Your task to perform on an android device: Open Amazon Image 0: 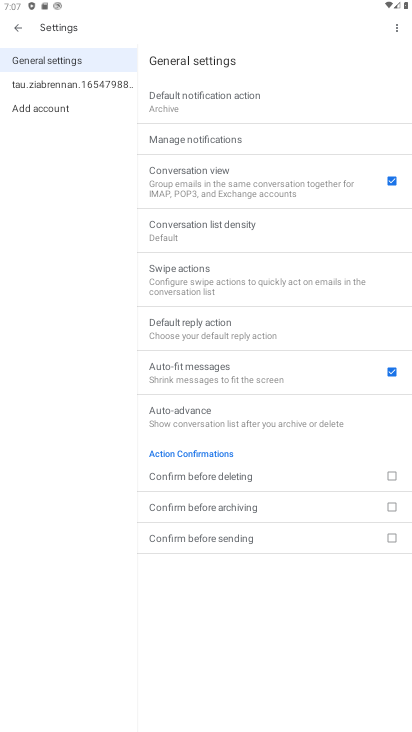
Step 0: press home button
Your task to perform on an android device: Open Amazon Image 1: 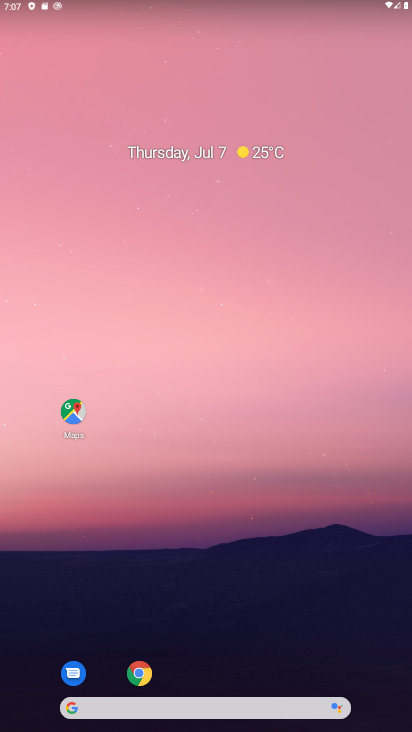
Step 1: drag from (197, 711) to (233, 415)
Your task to perform on an android device: Open Amazon Image 2: 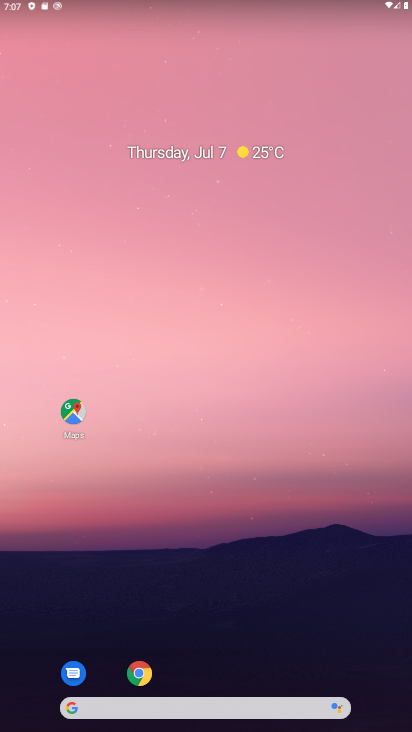
Step 2: click (139, 686)
Your task to perform on an android device: Open Amazon Image 3: 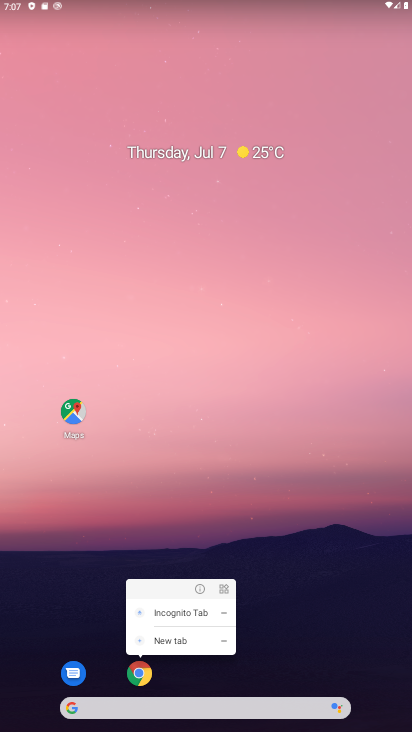
Step 3: click (140, 681)
Your task to perform on an android device: Open Amazon Image 4: 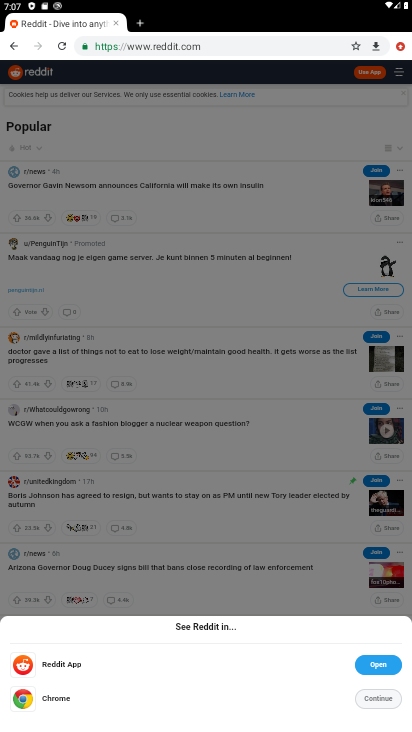
Step 4: click (399, 50)
Your task to perform on an android device: Open Amazon Image 5: 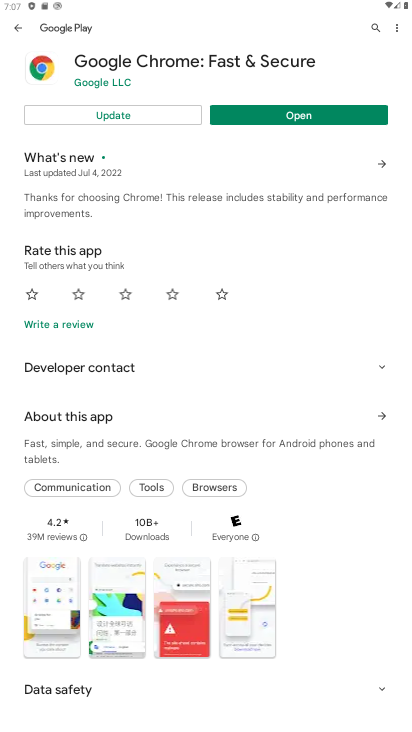
Step 5: press back button
Your task to perform on an android device: Open Amazon Image 6: 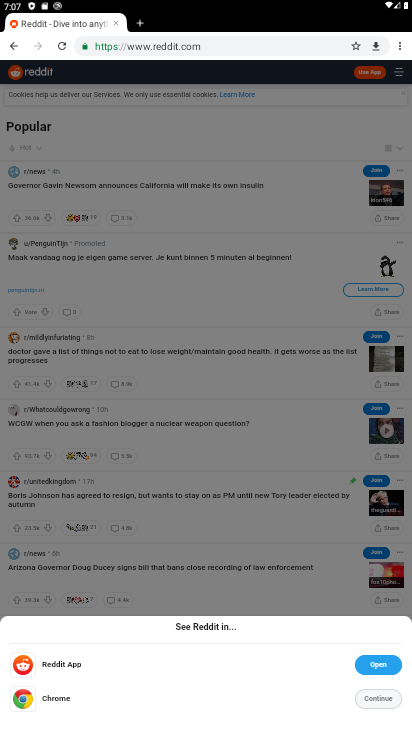
Step 6: click (24, 44)
Your task to perform on an android device: Open Amazon Image 7: 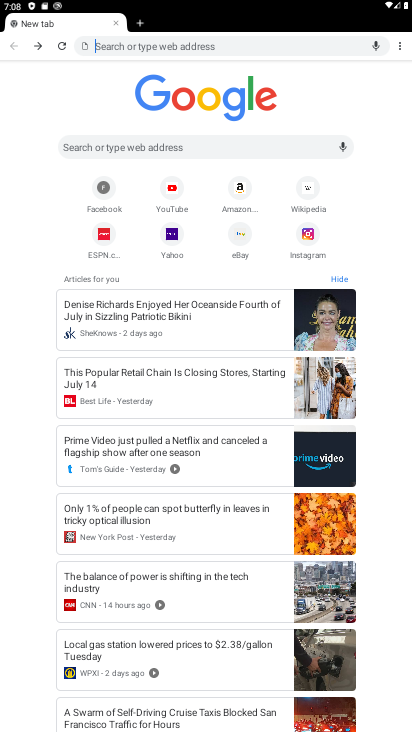
Step 7: click (232, 188)
Your task to perform on an android device: Open Amazon Image 8: 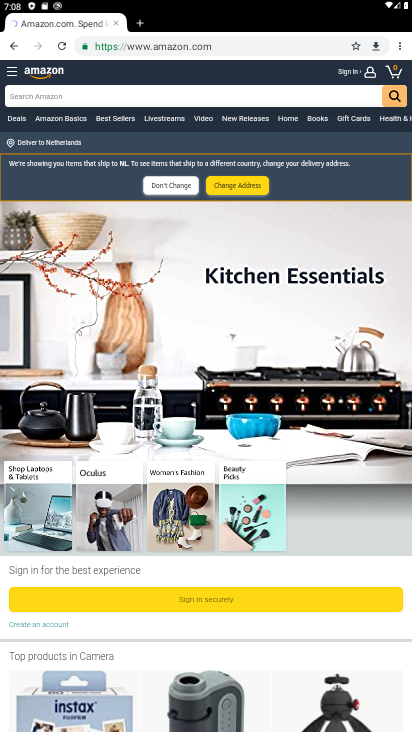
Step 8: task complete